Your task to perform on an android device: Set an alarm for 12pm Image 0: 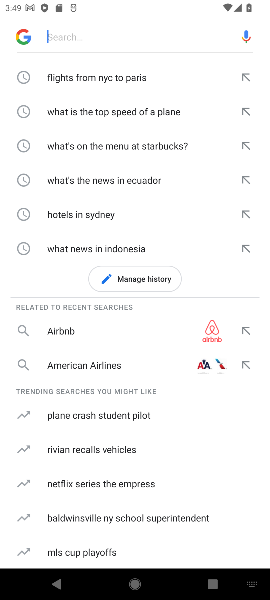
Step 0: press home button
Your task to perform on an android device: Set an alarm for 12pm Image 1: 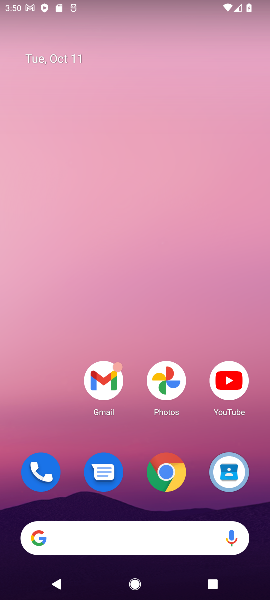
Step 1: drag from (134, 504) to (100, 138)
Your task to perform on an android device: Set an alarm for 12pm Image 2: 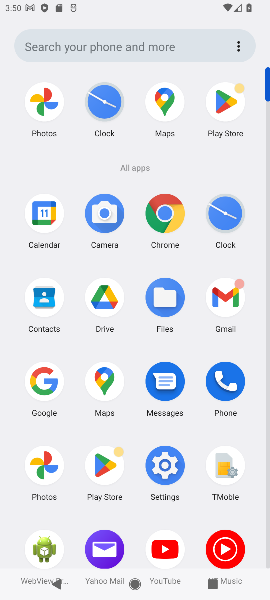
Step 2: click (218, 221)
Your task to perform on an android device: Set an alarm for 12pm Image 3: 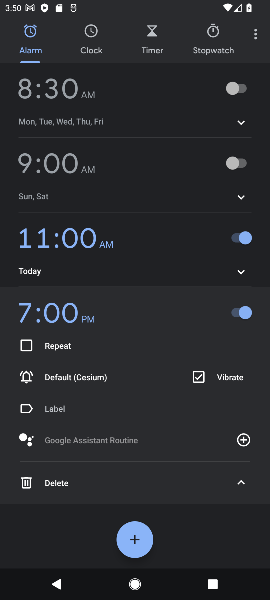
Step 3: click (131, 542)
Your task to perform on an android device: Set an alarm for 12pm Image 4: 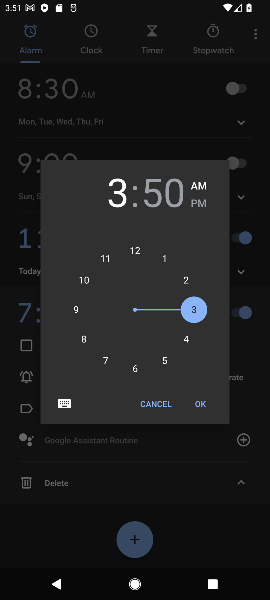
Step 4: click (139, 250)
Your task to perform on an android device: Set an alarm for 12pm Image 5: 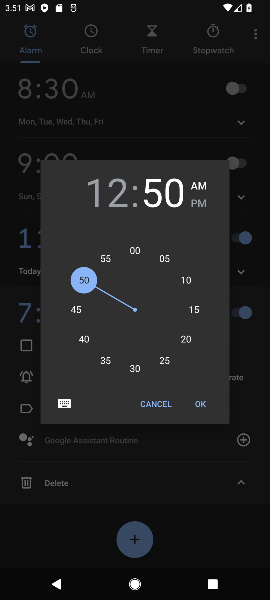
Step 5: click (139, 250)
Your task to perform on an android device: Set an alarm for 12pm Image 6: 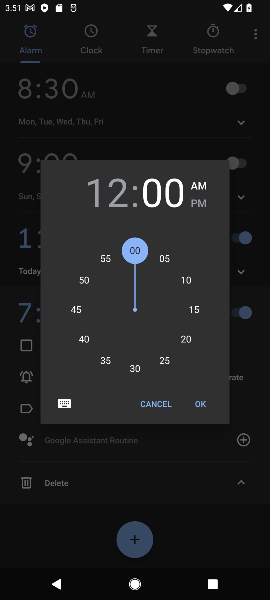
Step 6: click (199, 408)
Your task to perform on an android device: Set an alarm for 12pm Image 7: 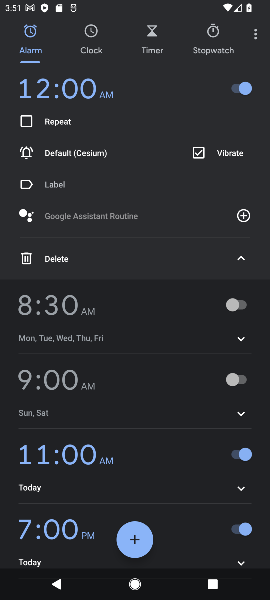
Step 7: task complete